Your task to perform on an android device: turn notification dots off Image 0: 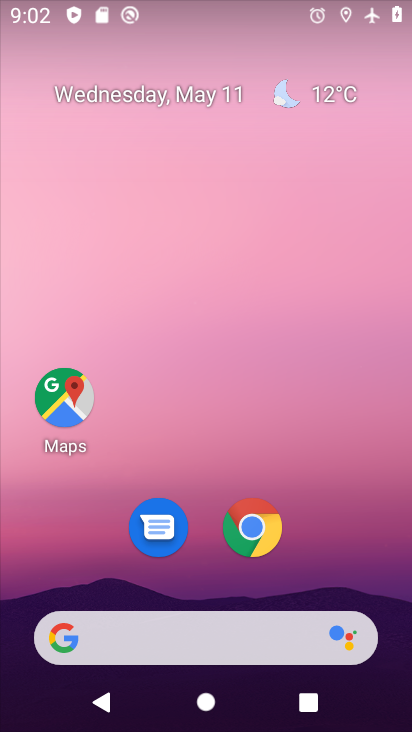
Step 0: drag from (334, 550) to (332, 102)
Your task to perform on an android device: turn notification dots off Image 1: 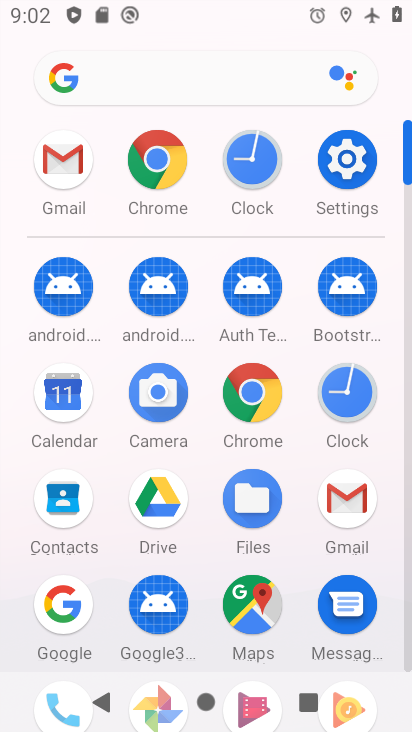
Step 1: click (353, 159)
Your task to perform on an android device: turn notification dots off Image 2: 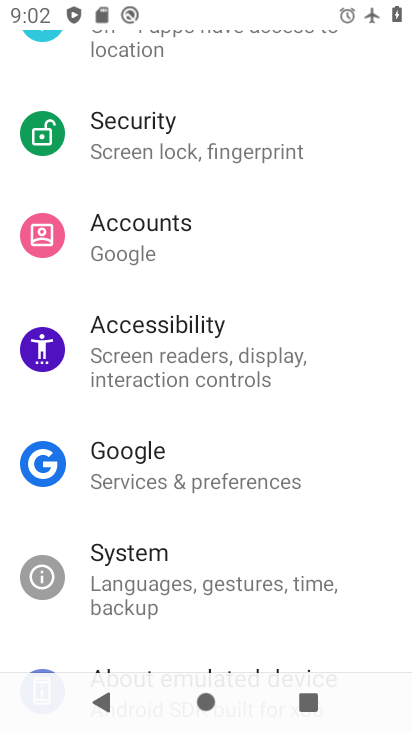
Step 2: drag from (261, 162) to (197, 625)
Your task to perform on an android device: turn notification dots off Image 3: 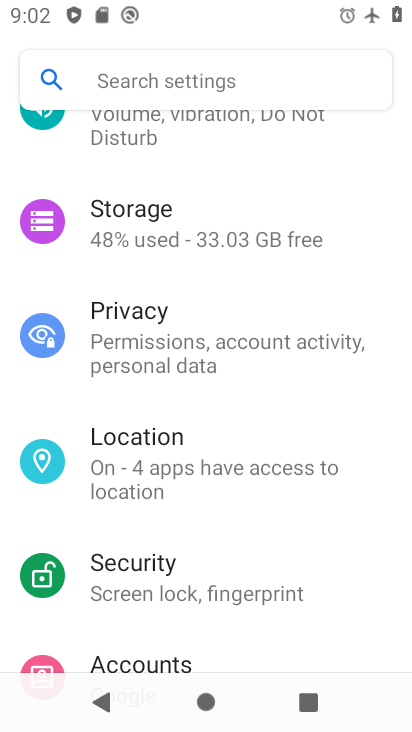
Step 3: drag from (225, 247) to (205, 634)
Your task to perform on an android device: turn notification dots off Image 4: 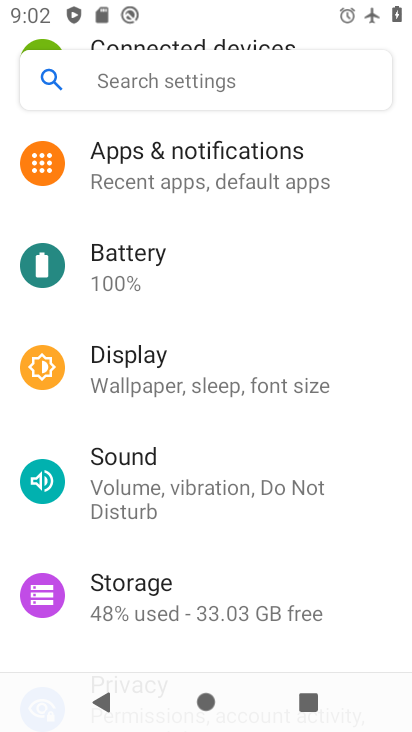
Step 4: click (250, 179)
Your task to perform on an android device: turn notification dots off Image 5: 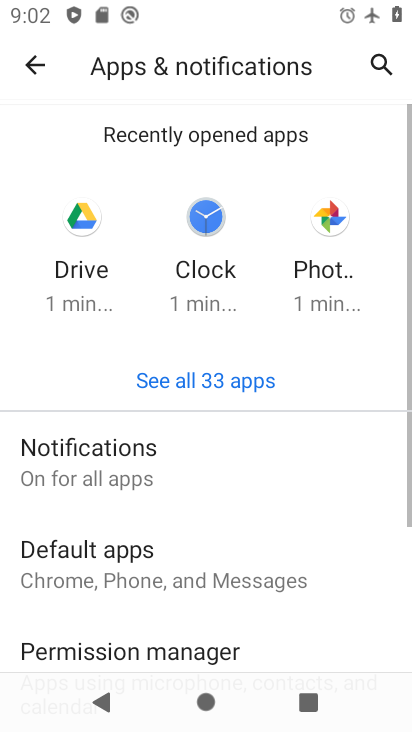
Step 5: click (135, 441)
Your task to perform on an android device: turn notification dots off Image 6: 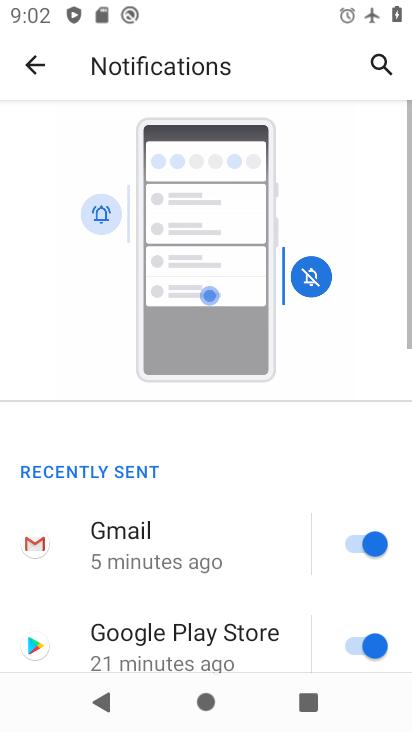
Step 6: drag from (256, 524) to (308, 114)
Your task to perform on an android device: turn notification dots off Image 7: 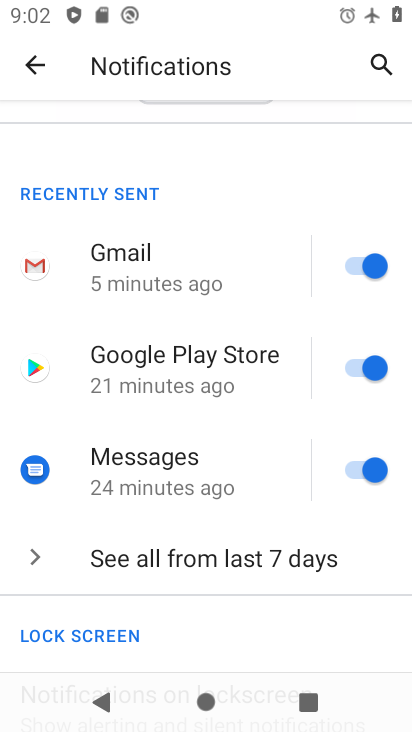
Step 7: drag from (235, 617) to (292, 79)
Your task to perform on an android device: turn notification dots off Image 8: 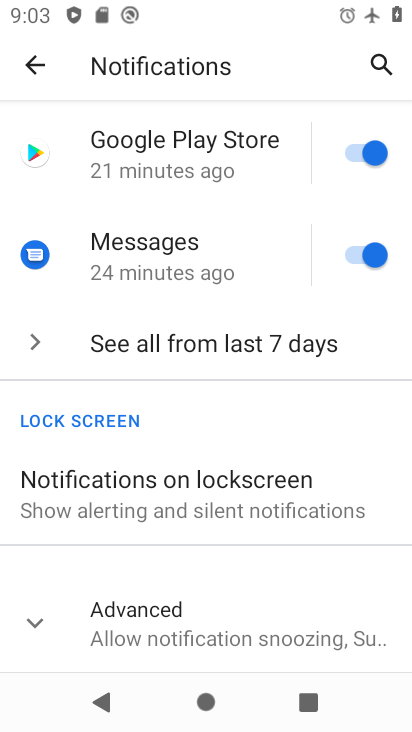
Step 8: click (179, 597)
Your task to perform on an android device: turn notification dots off Image 9: 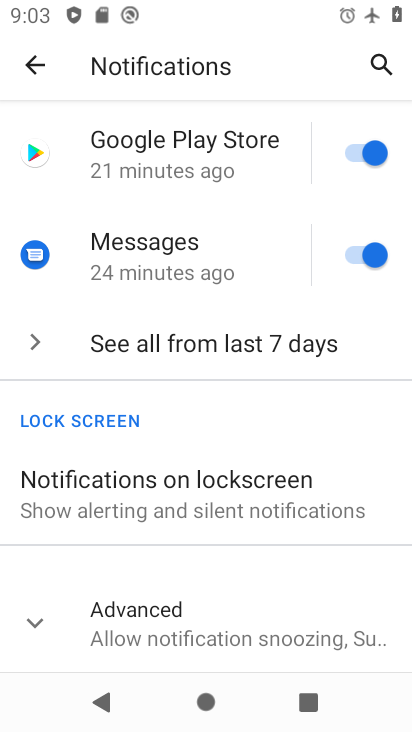
Step 9: click (218, 594)
Your task to perform on an android device: turn notification dots off Image 10: 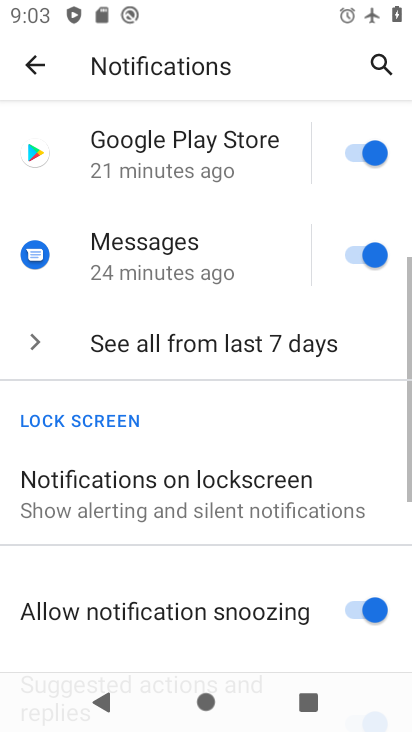
Step 10: drag from (249, 556) to (284, 115)
Your task to perform on an android device: turn notification dots off Image 11: 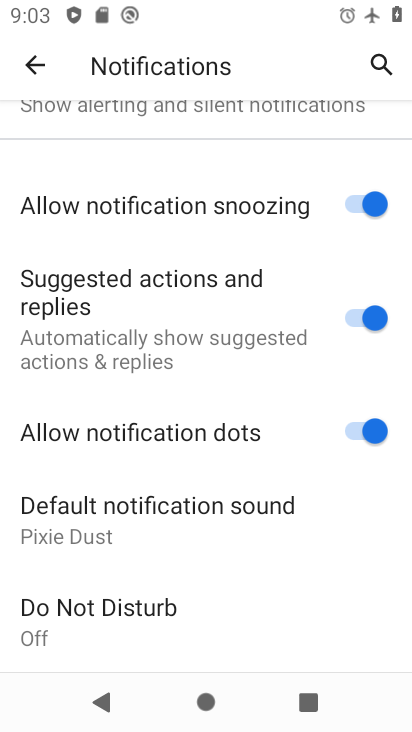
Step 11: click (350, 428)
Your task to perform on an android device: turn notification dots off Image 12: 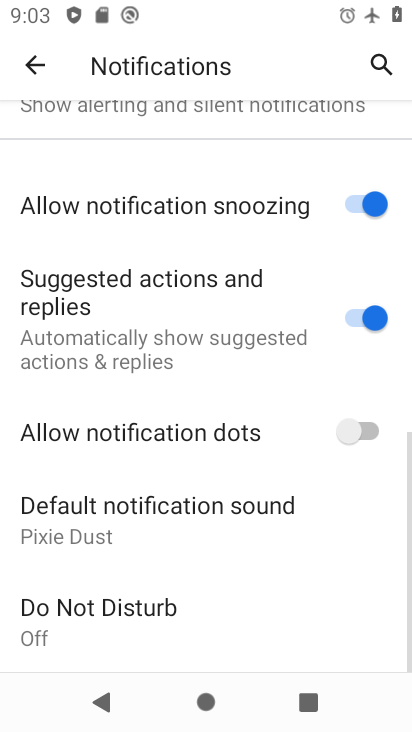
Step 12: task complete